Your task to perform on an android device: clear all cookies in the chrome app Image 0: 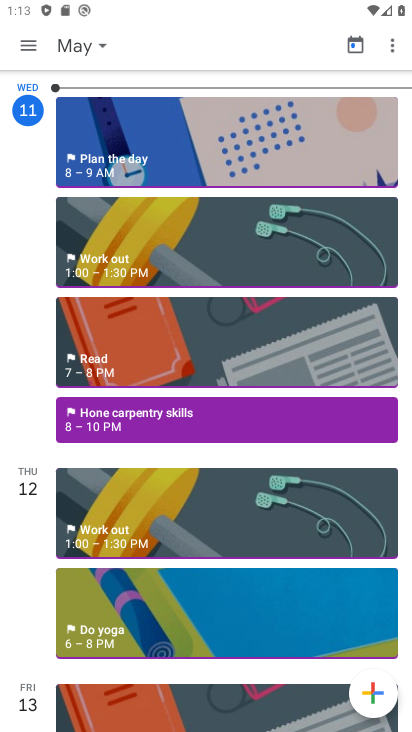
Step 0: press back button
Your task to perform on an android device: clear all cookies in the chrome app Image 1: 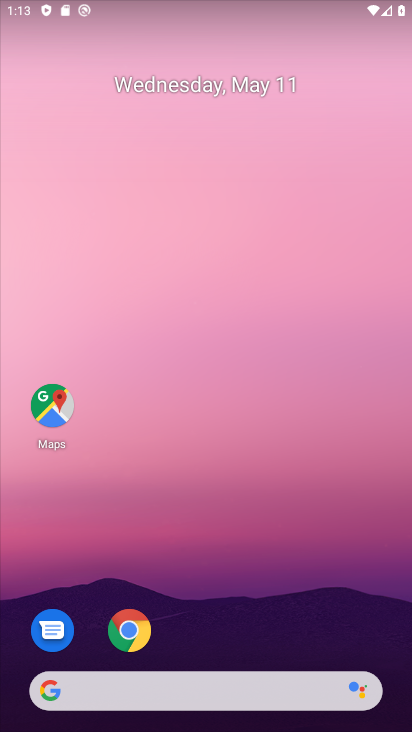
Step 1: click (117, 624)
Your task to perform on an android device: clear all cookies in the chrome app Image 2: 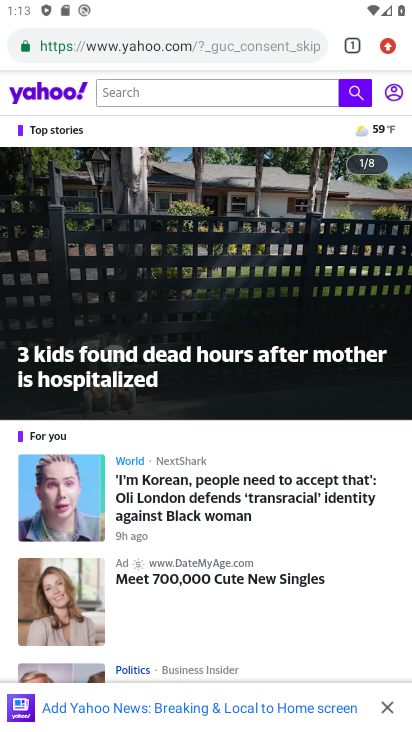
Step 2: drag from (391, 40) to (259, 611)
Your task to perform on an android device: clear all cookies in the chrome app Image 3: 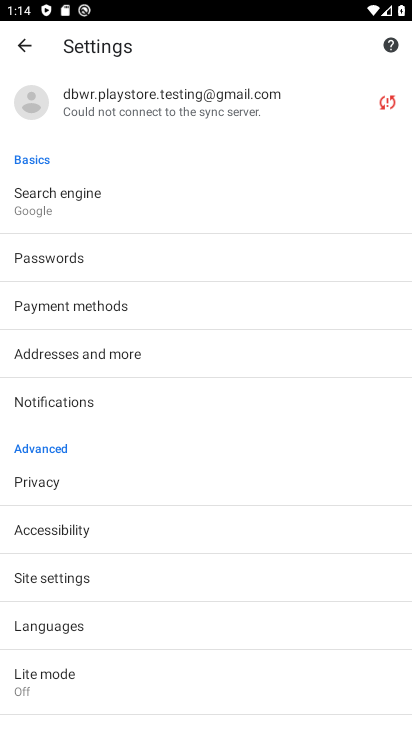
Step 3: click (88, 487)
Your task to perform on an android device: clear all cookies in the chrome app Image 4: 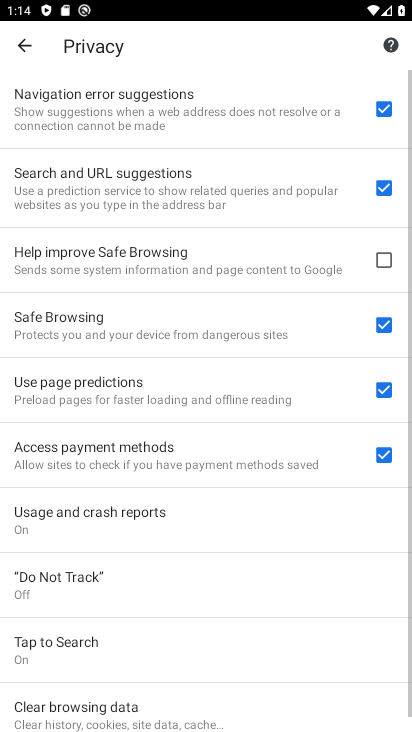
Step 4: drag from (156, 667) to (263, 260)
Your task to perform on an android device: clear all cookies in the chrome app Image 5: 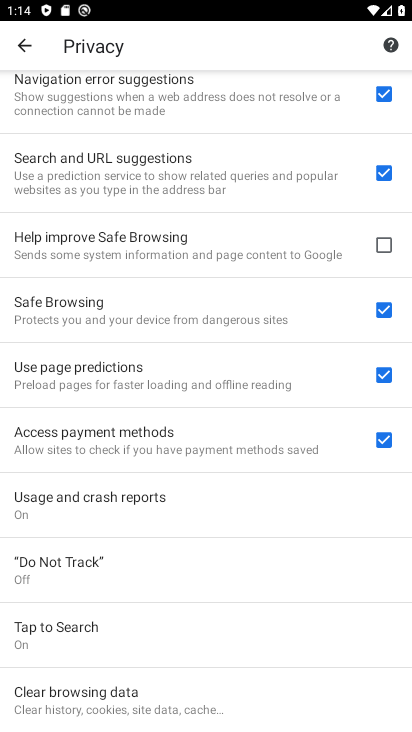
Step 5: click (153, 698)
Your task to perform on an android device: clear all cookies in the chrome app Image 6: 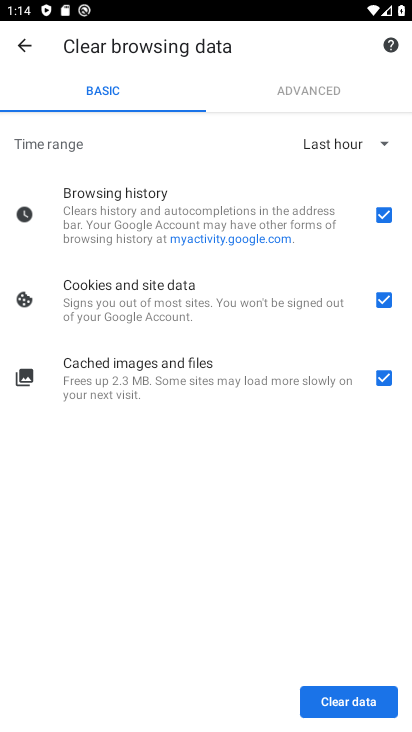
Step 6: click (378, 213)
Your task to perform on an android device: clear all cookies in the chrome app Image 7: 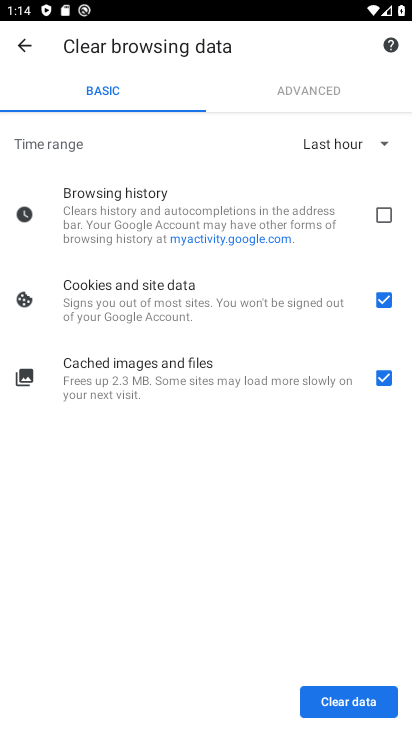
Step 7: click (389, 373)
Your task to perform on an android device: clear all cookies in the chrome app Image 8: 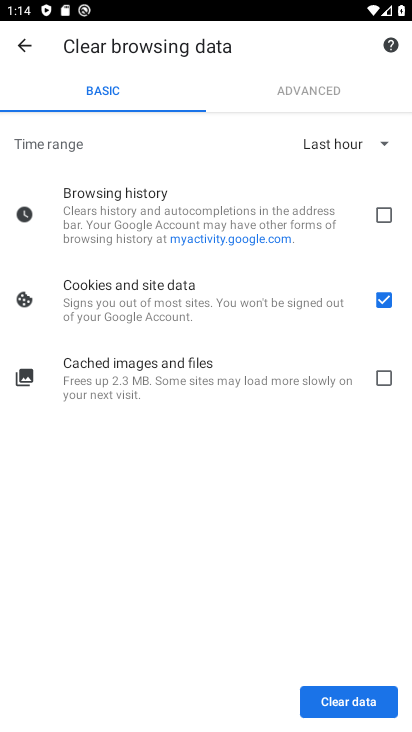
Step 8: click (359, 698)
Your task to perform on an android device: clear all cookies in the chrome app Image 9: 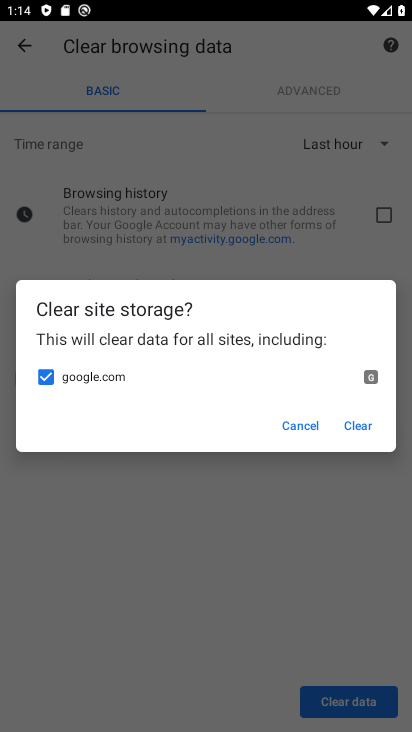
Step 9: click (357, 427)
Your task to perform on an android device: clear all cookies in the chrome app Image 10: 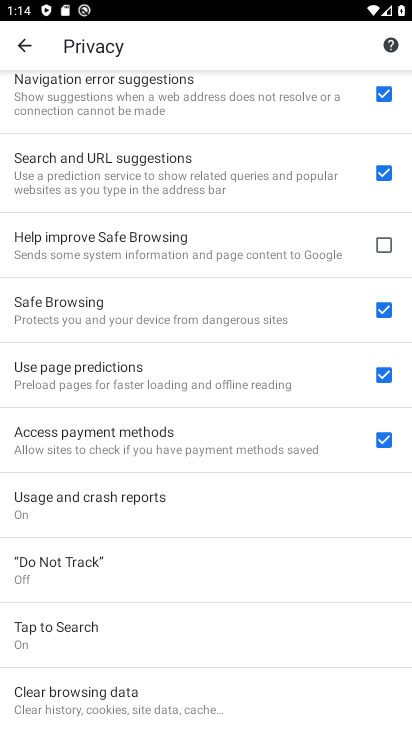
Step 10: task complete